Your task to perform on an android device: uninstall "Venmo" Image 0: 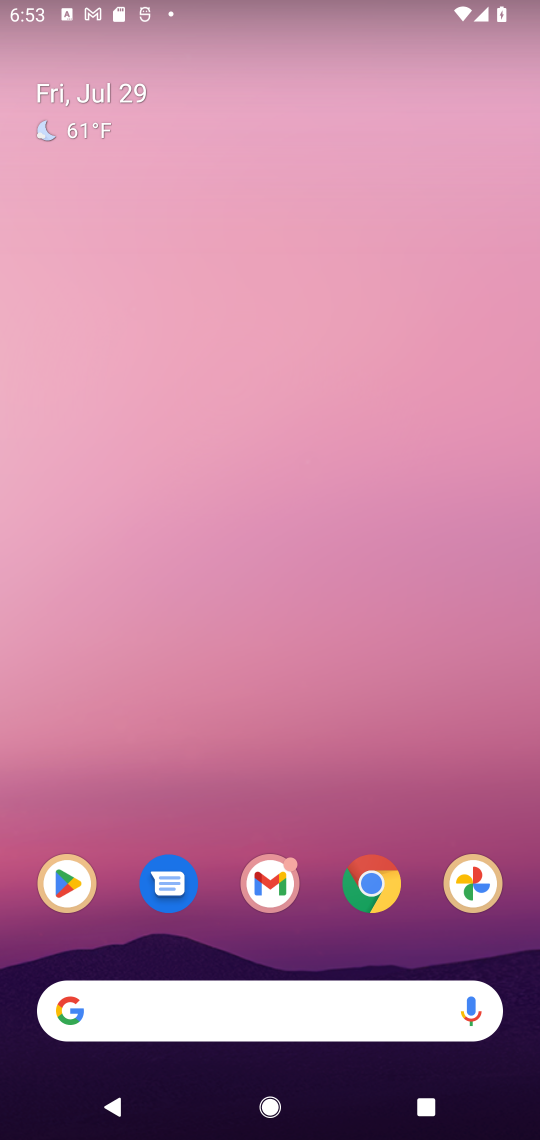
Step 0: click (73, 879)
Your task to perform on an android device: uninstall "Venmo" Image 1: 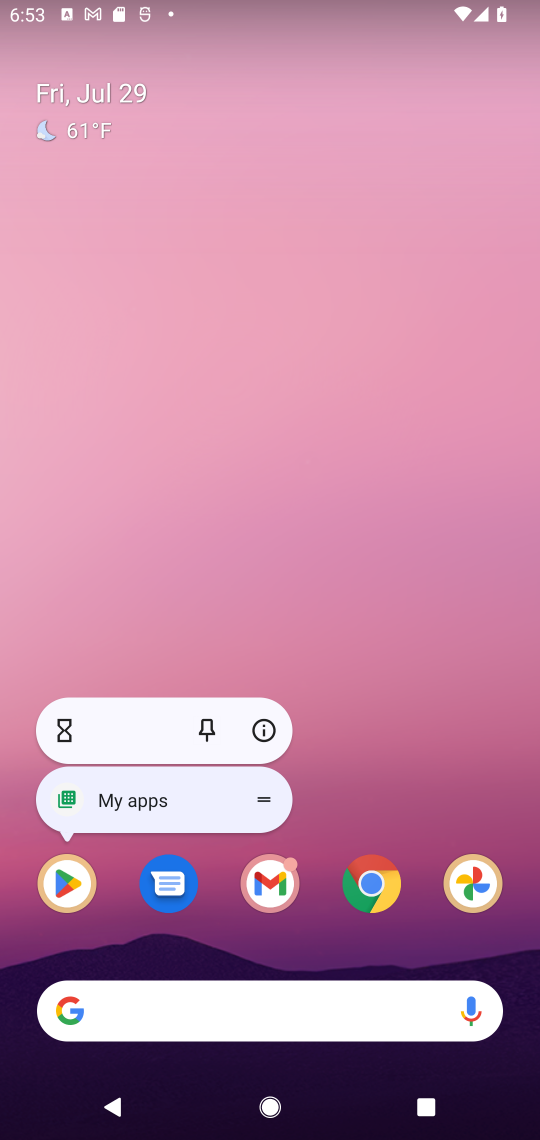
Step 1: click (62, 893)
Your task to perform on an android device: uninstall "Venmo" Image 2: 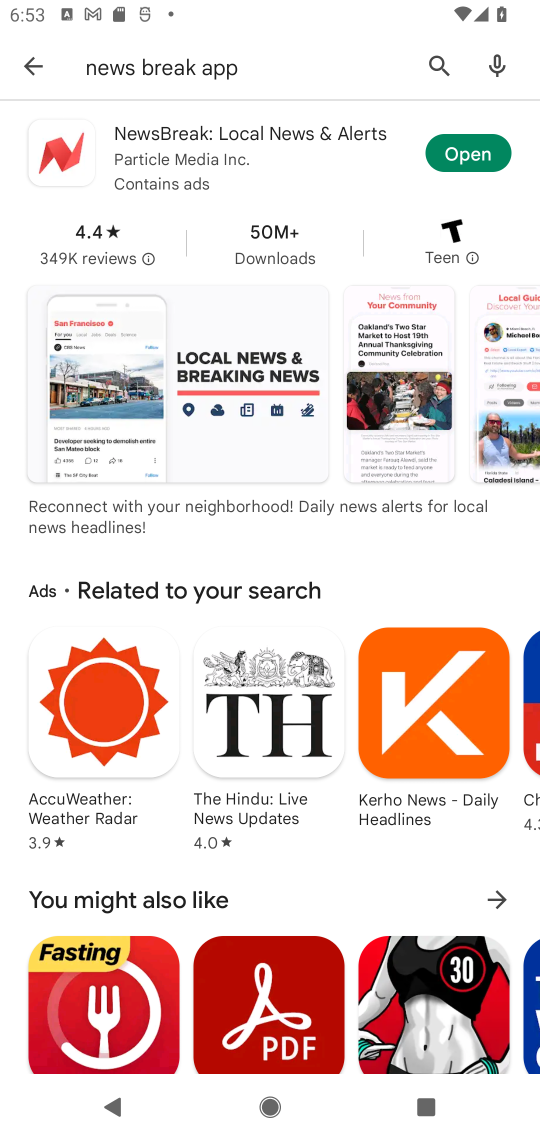
Step 2: click (426, 48)
Your task to perform on an android device: uninstall "Venmo" Image 3: 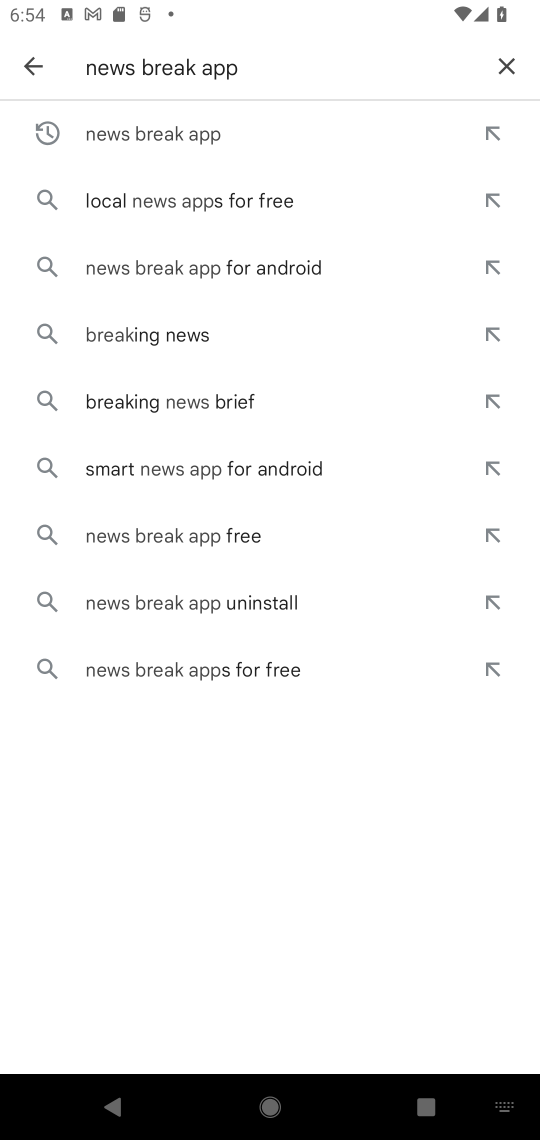
Step 3: click (517, 60)
Your task to perform on an android device: uninstall "Venmo" Image 4: 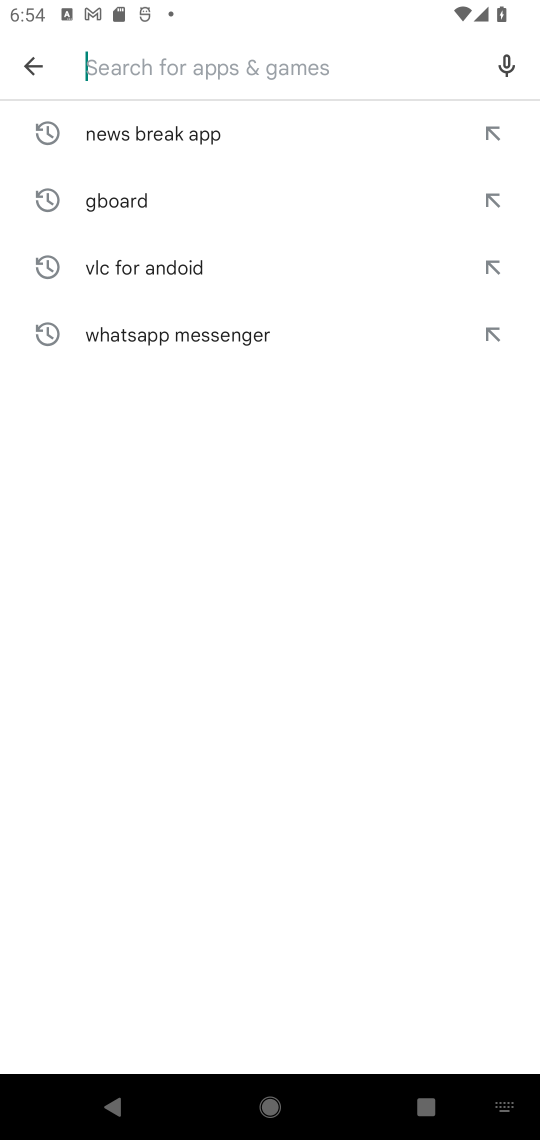
Step 4: click (240, 65)
Your task to perform on an android device: uninstall "Venmo" Image 5: 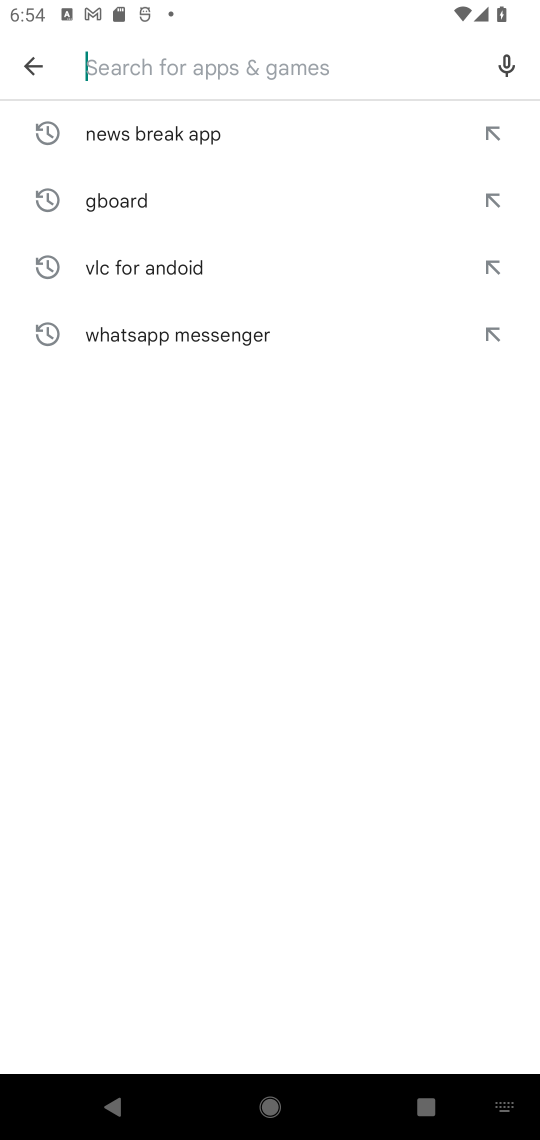
Step 5: type "venmo"
Your task to perform on an android device: uninstall "Venmo" Image 6: 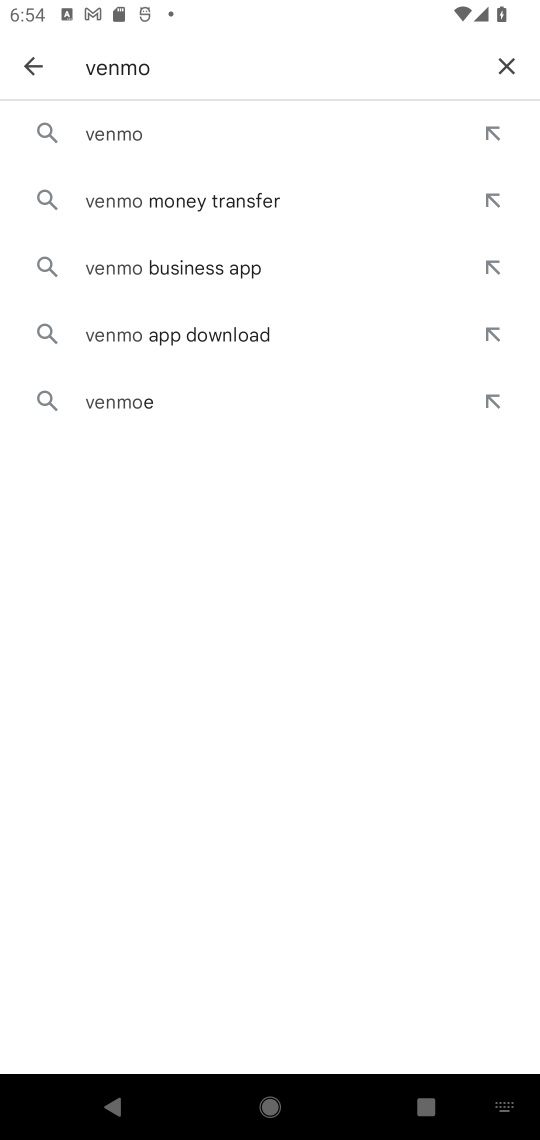
Step 6: click (98, 130)
Your task to perform on an android device: uninstall "Venmo" Image 7: 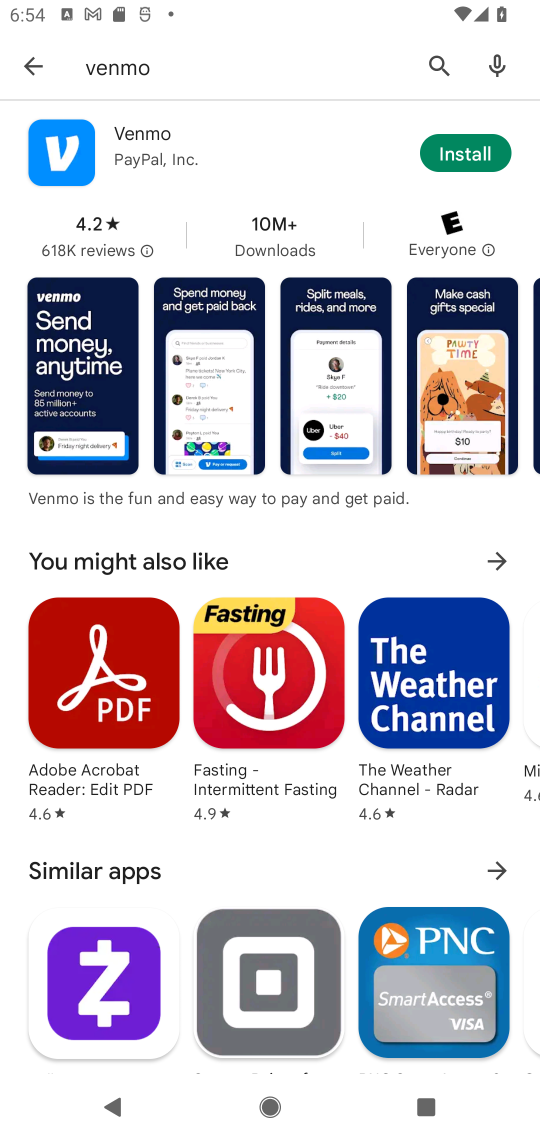
Step 7: task complete